Your task to perform on an android device: uninstall "Microsoft Authenticator" Image 0: 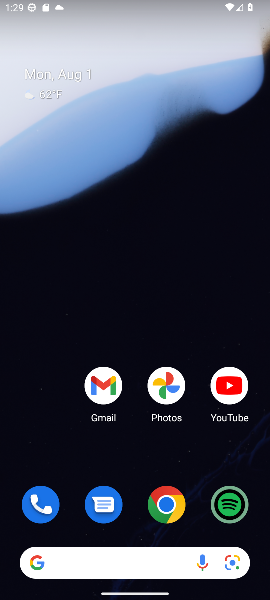
Step 0: drag from (101, 551) to (101, 324)
Your task to perform on an android device: uninstall "Microsoft Authenticator" Image 1: 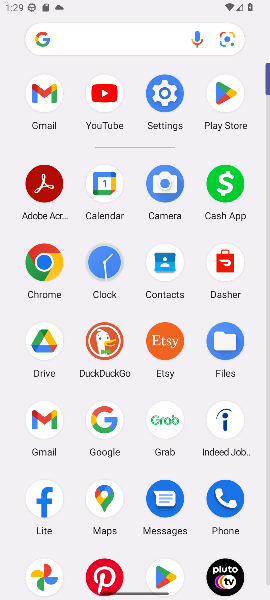
Step 1: click (224, 101)
Your task to perform on an android device: uninstall "Microsoft Authenticator" Image 2: 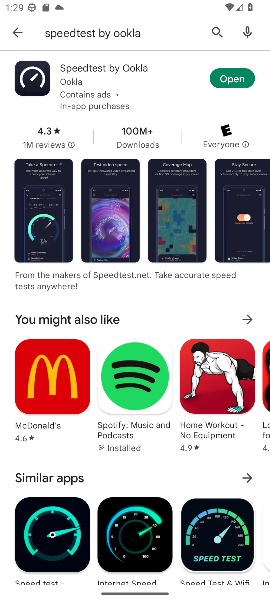
Step 2: click (214, 19)
Your task to perform on an android device: uninstall "Microsoft Authenticator" Image 3: 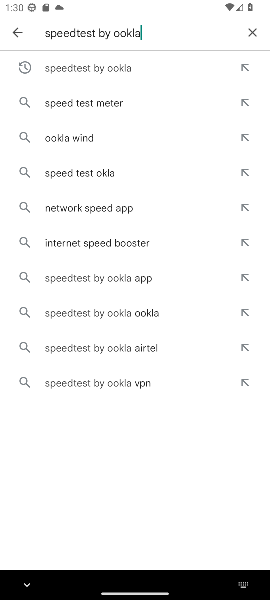
Step 3: click (254, 28)
Your task to perform on an android device: uninstall "Microsoft Authenticator" Image 4: 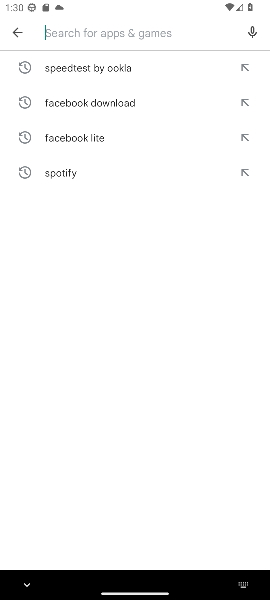
Step 4: type ""
Your task to perform on an android device: uninstall "Microsoft Authenticator" Image 5: 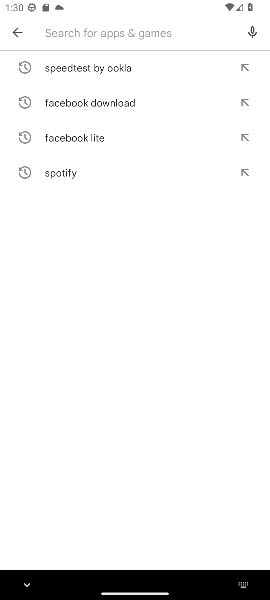
Step 5: type "microsoft authenticator"
Your task to perform on an android device: uninstall "Microsoft Authenticator" Image 6: 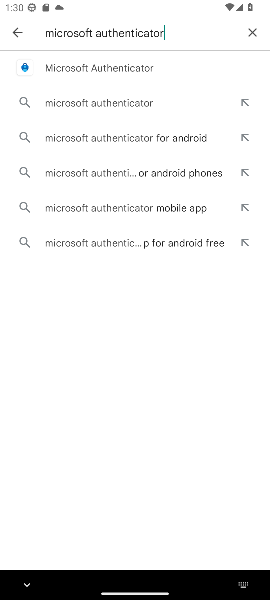
Step 6: click (87, 60)
Your task to perform on an android device: uninstall "Microsoft Authenticator" Image 7: 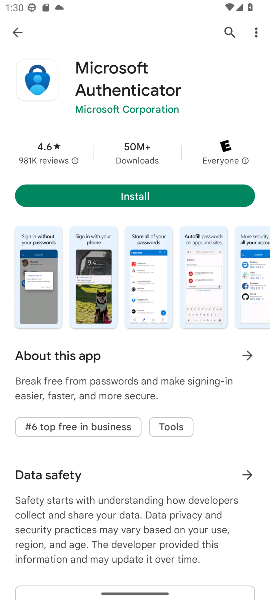
Step 7: click (104, 170)
Your task to perform on an android device: uninstall "Microsoft Authenticator" Image 8: 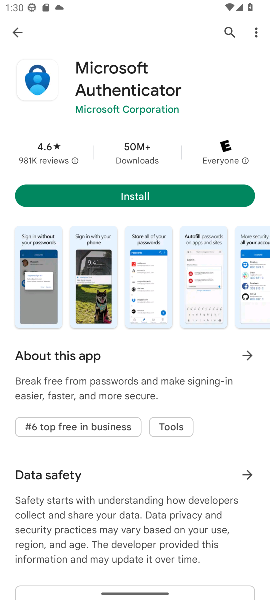
Step 8: task complete